Your task to perform on an android device: Search for vegetarian restaurants on Maps Image 0: 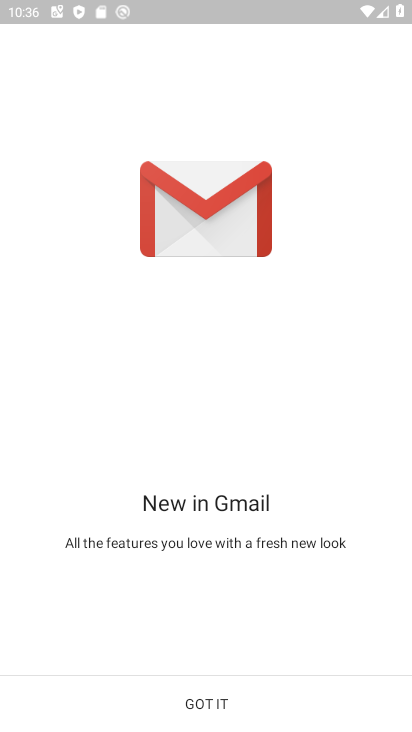
Step 0: press home button
Your task to perform on an android device: Search for vegetarian restaurants on Maps Image 1: 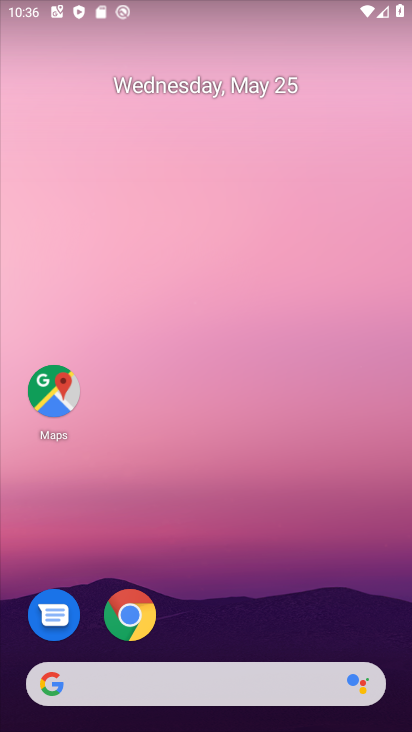
Step 1: click (51, 381)
Your task to perform on an android device: Search for vegetarian restaurants on Maps Image 2: 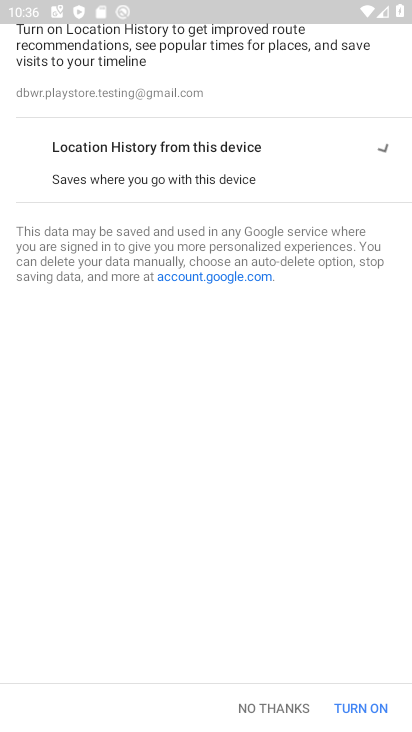
Step 2: task complete